Your task to perform on an android device: open chrome and create a bookmark for the current page Image 0: 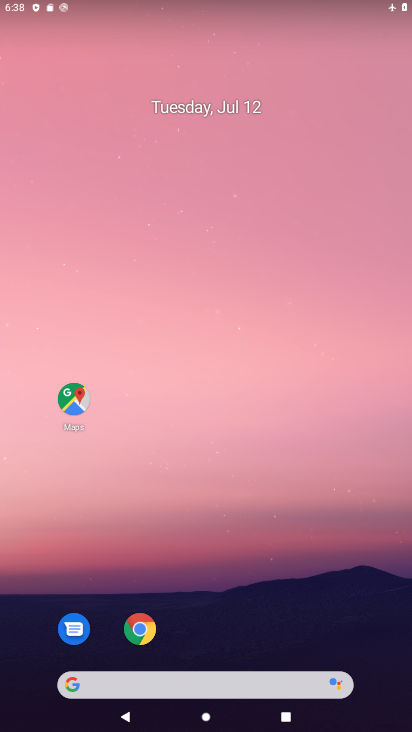
Step 0: click (143, 636)
Your task to perform on an android device: open chrome and create a bookmark for the current page Image 1: 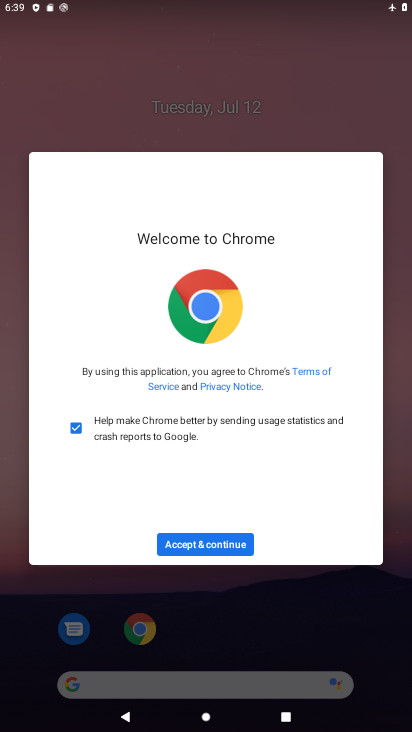
Step 1: click (181, 544)
Your task to perform on an android device: open chrome and create a bookmark for the current page Image 2: 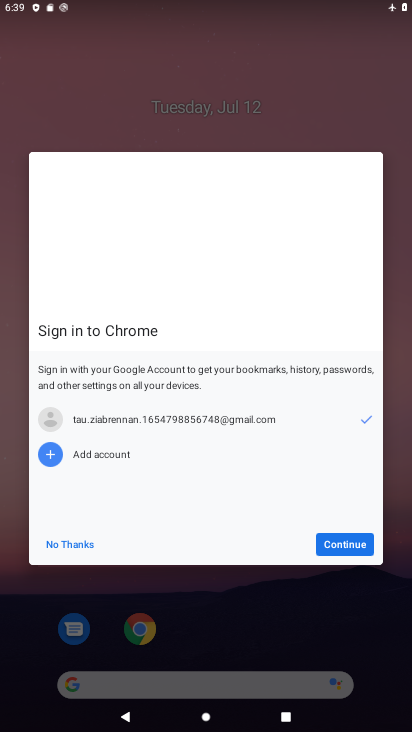
Step 2: click (367, 538)
Your task to perform on an android device: open chrome and create a bookmark for the current page Image 3: 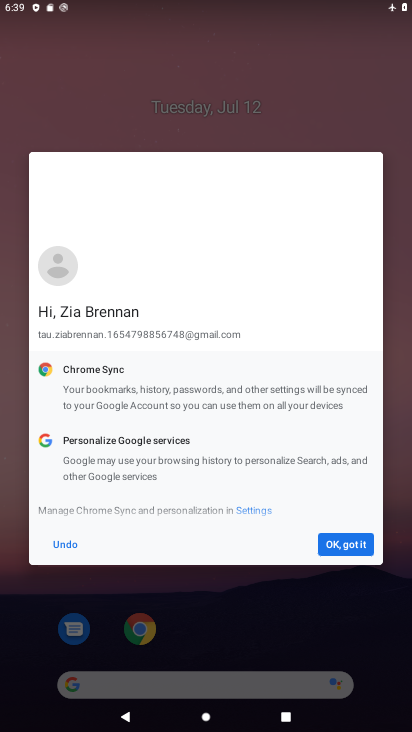
Step 3: click (349, 545)
Your task to perform on an android device: open chrome and create a bookmark for the current page Image 4: 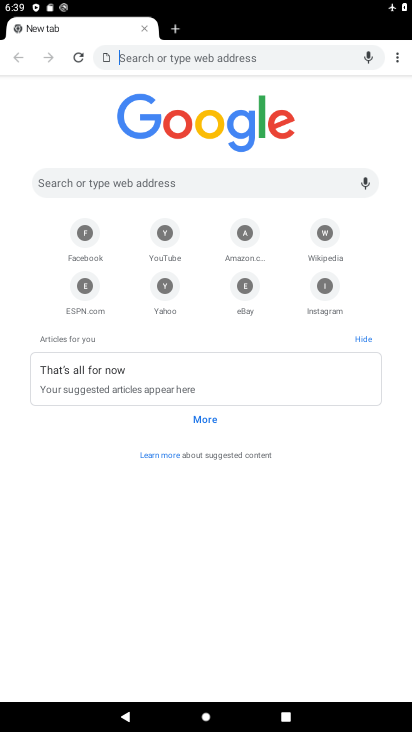
Step 4: click (399, 59)
Your task to perform on an android device: open chrome and create a bookmark for the current page Image 5: 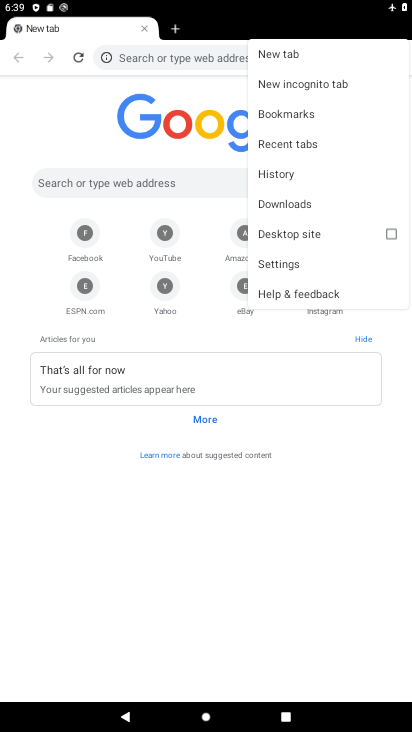
Step 5: click (51, 103)
Your task to perform on an android device: open chrome and create a bookmark for the current page Image 6: 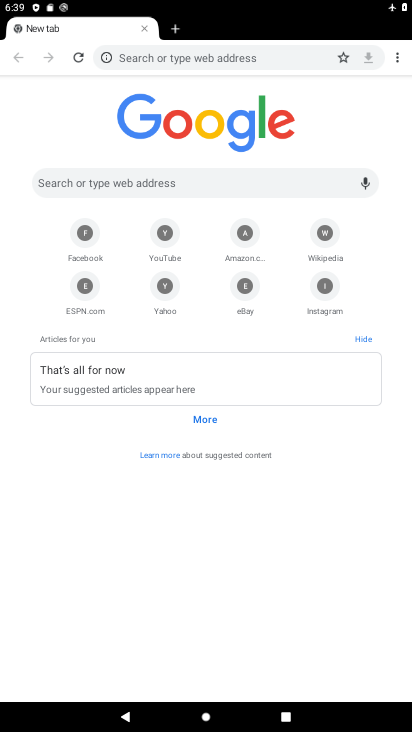
Step 6: click (345, 56)
Your task to perform on an android device: open chrome and create a bookmark for the current page Image 7: 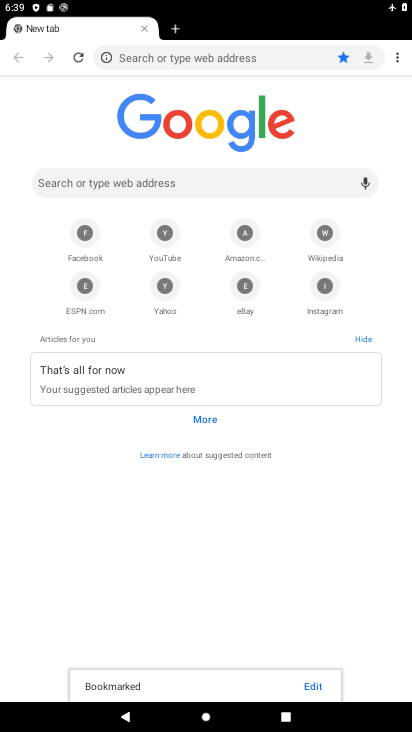
Step 7: task complete